Your task to perform on an android device: check out phone information Image 0: 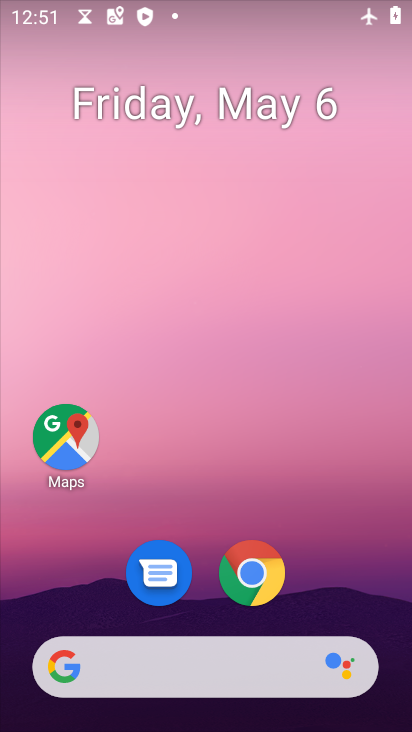
Step 0: drag from (331, 599) to (349, 281)
Your task to perform on an android device: check out phone information Image 1: 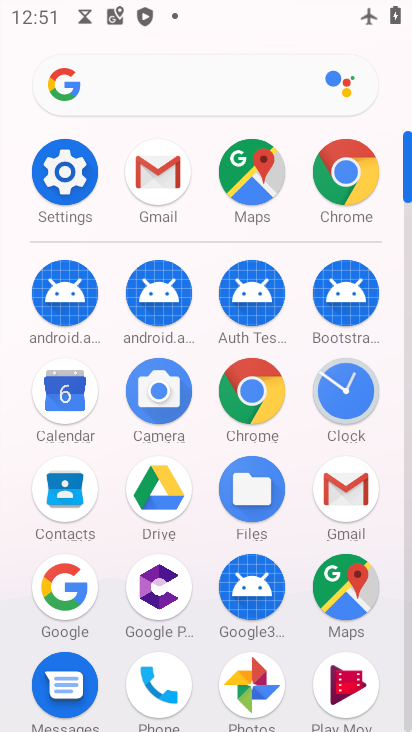
Step 1: click (79, 172)
Your task to perform on an android device: check out phone information Image 2: 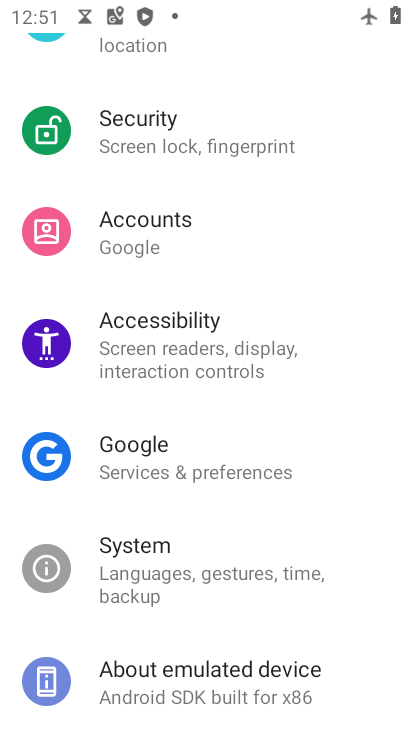
Step 2: click (168, 694)
Your task to perform on an android device: check out phone information Image 3: 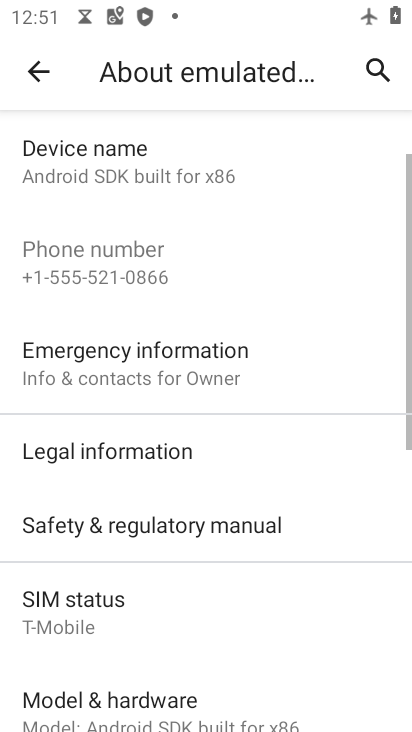
Step 3: task complete